Your task to perform on an android device: turn on javascript in the chrome app Image 0: 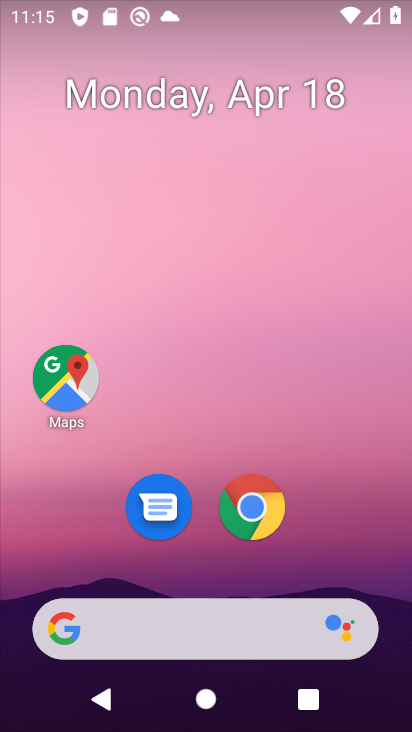
Step 0: click (242, 515)
Your task to perform on an android device: turn on javascript in the chrome app Image 1: 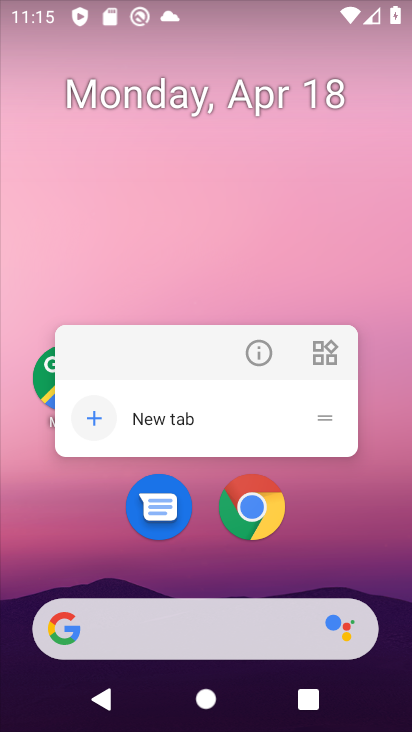
Step 1: click (245, 497)
Your task to perform on an android device: turn on javascript in the chrome app Image 2: 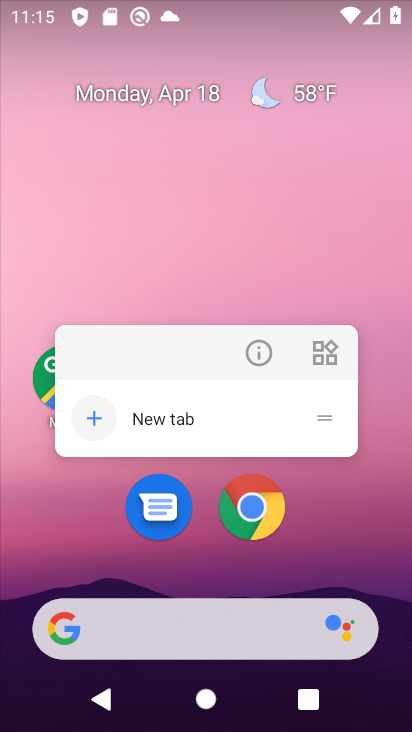
Step 2: click (275, 508)
Your task to perform on an android device: turn on javascript in the chrome app Image 3: 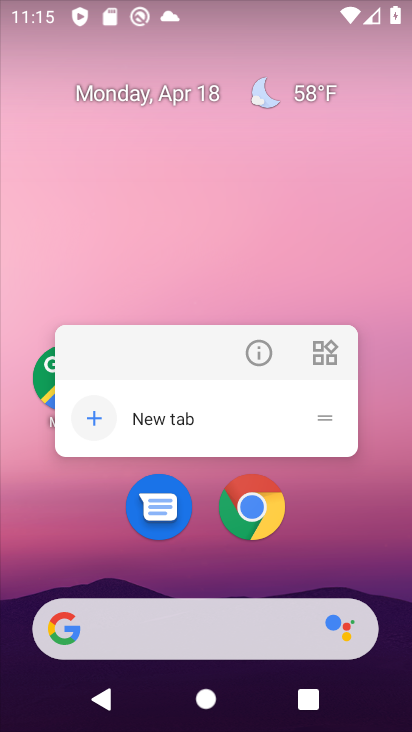
Step 3: click (275, 508)
Your task to perform on an android device: turn on javascript in the chrome app Image 4: 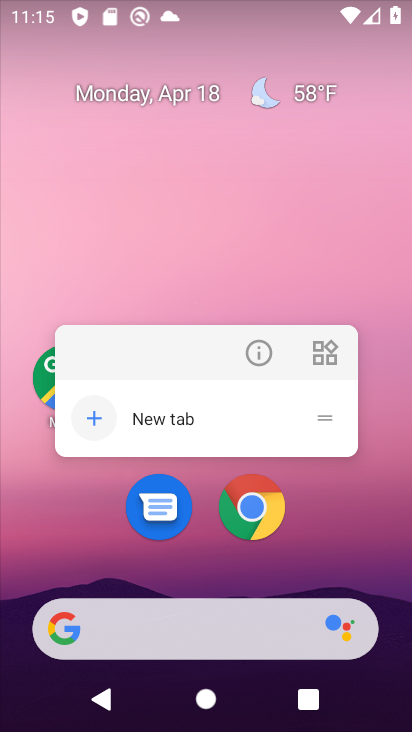
Step 4: click (275, 508)
Your task to perform on an android device: turn on javascript in the chrome app Image 5: 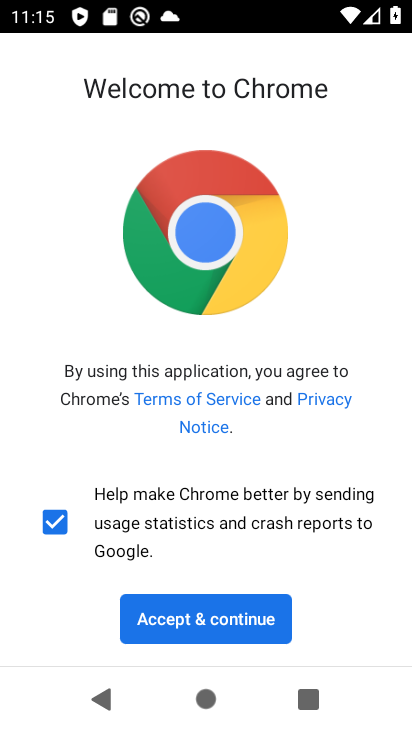
Step 5: click (211, 602)
Your task to perform on an android device: turn on javascript in the chrome app Image 6: 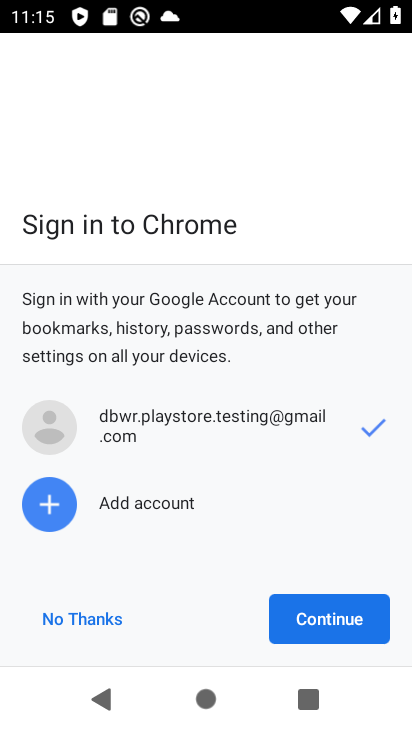
Step 6: click (315, 619)
Your task to perform on an android device: turn on javascript in the chrome app Image 7: 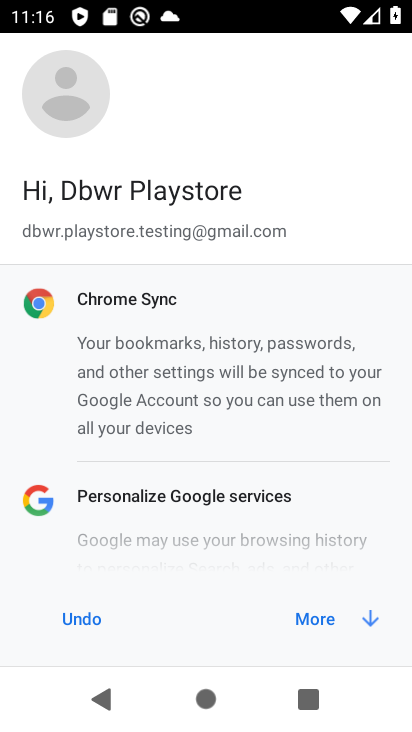
Step 7: click (342, 612)
Your task to perform on an android device: turn on javascript in the chrome app Image 8: 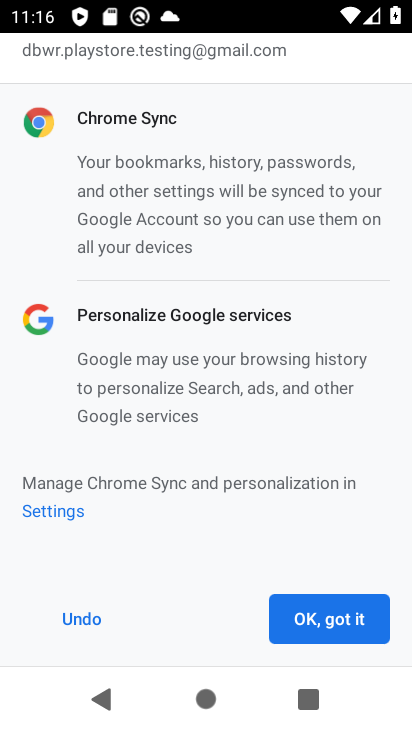
Step 8: click (307, 622)
Your task to perform on an android device: turn on javascript in the chrome app Image 9: 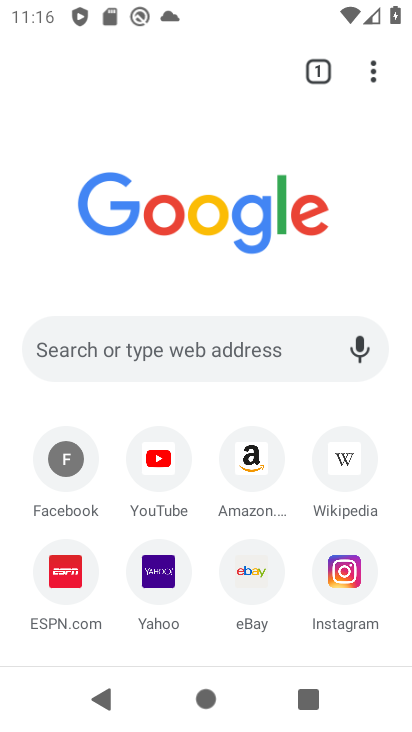
Step 9: click (368, 76)
Your task to perform on an android device: turn on javascript in the chrome app Image 10: 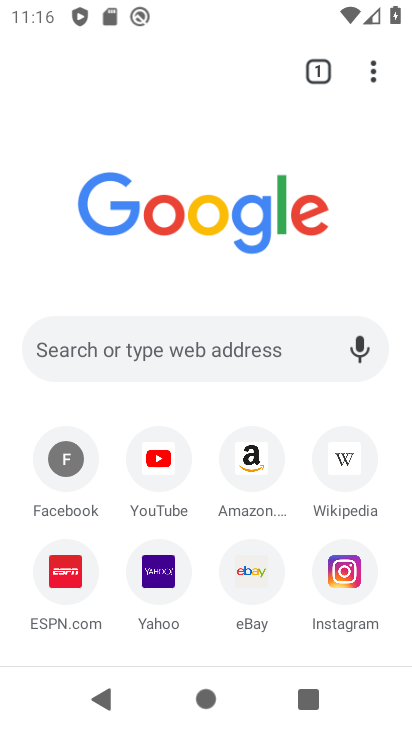
Step 10: drag from (377, 79) to (137, 499)
Your task to perform on an android device: turn on javascript in the chrome app Image 11: 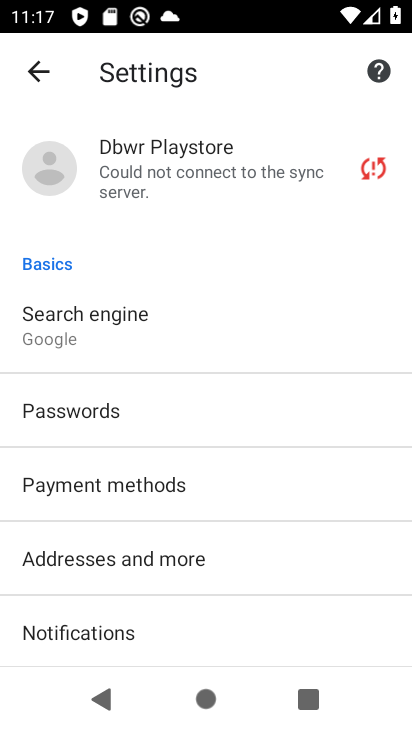
Step 11: drag from (159, 593) to (164, 209)
Your task to perform on an android device: turn on javascript in the chrome app Image 12: 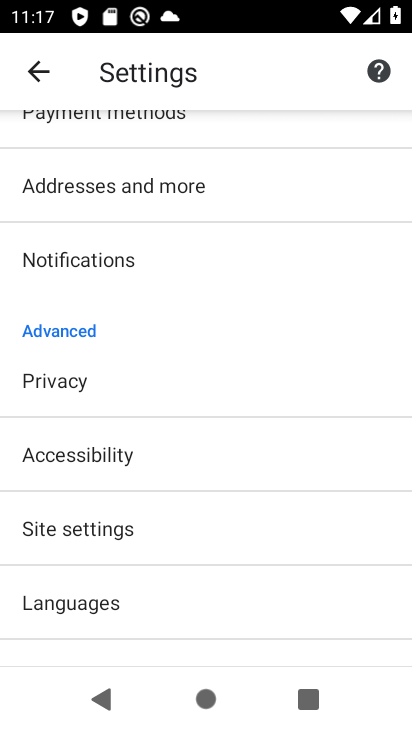
Step 12: click (85, 535)
Your task to perform on an android device: turn on javascript in the chrome app Image 13: 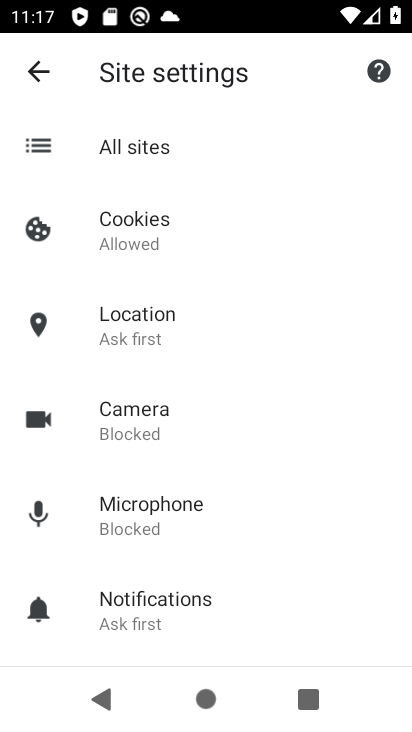
Step 13: drag from (137, 461) to (118, 61)
Your task to perform on an android device: turn on javascript in the chrome app Image 14: 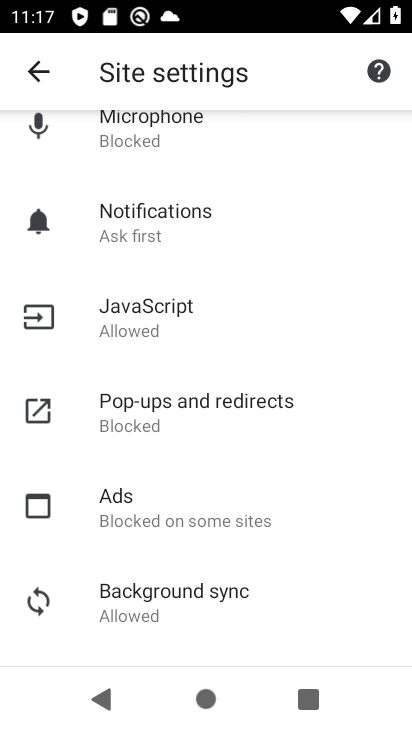
Step 14: click (134, 334)
Your task to perform on an android device: turn on javascript in the chrome app Image 15: 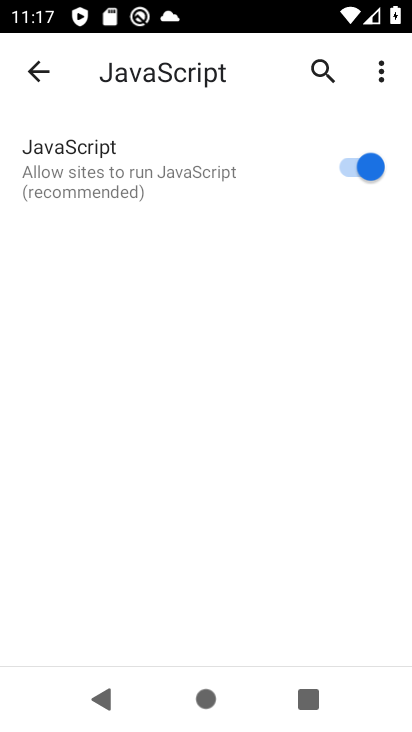
Step 15: click (367, 165)
Your task to perform on an android device: turn on javascript in the chrome app Image 16: 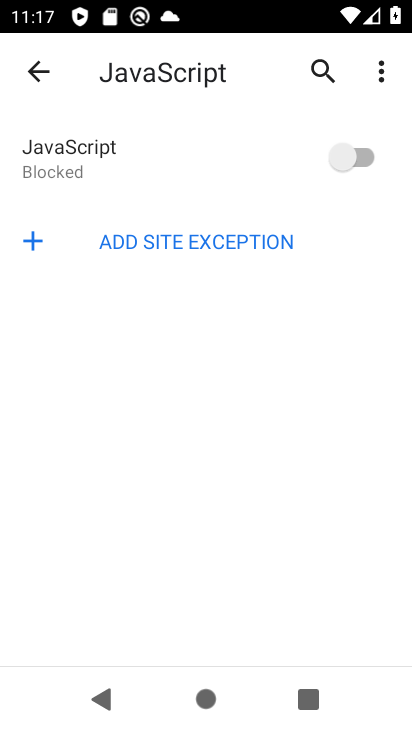
Step 16: task complete